Your task to perform on an android device: What is the recent news? Image 0: 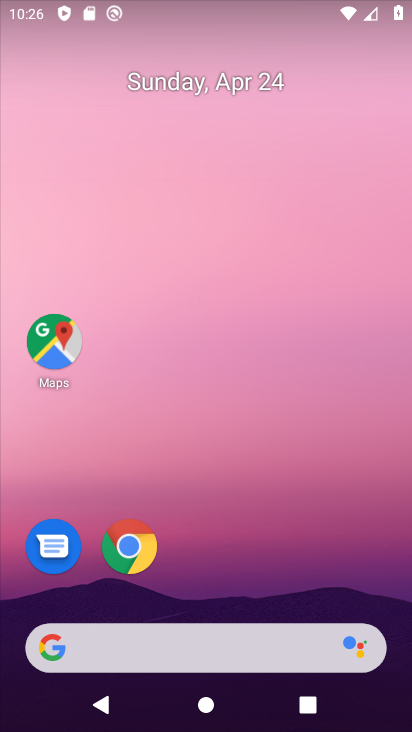
Step 0: drag from (264, 600) to (292, 103)
Your task to perform on an android device: What is the recent news? Image 1: 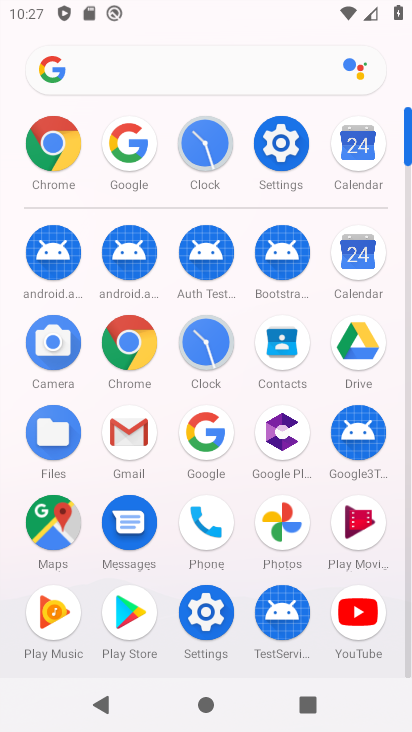
Step 1: click (196, 434)
Your task to perform on an android device: What is the recent news? Image 2: 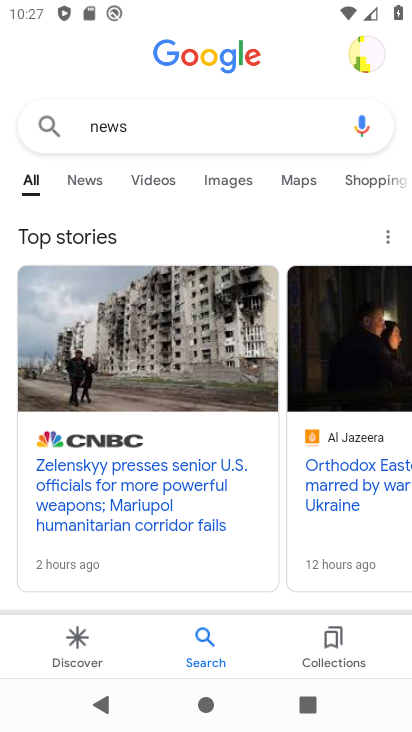
Step 2: click (180, 138)
Your task to perform on an android device: What is the recent news? Image 3: 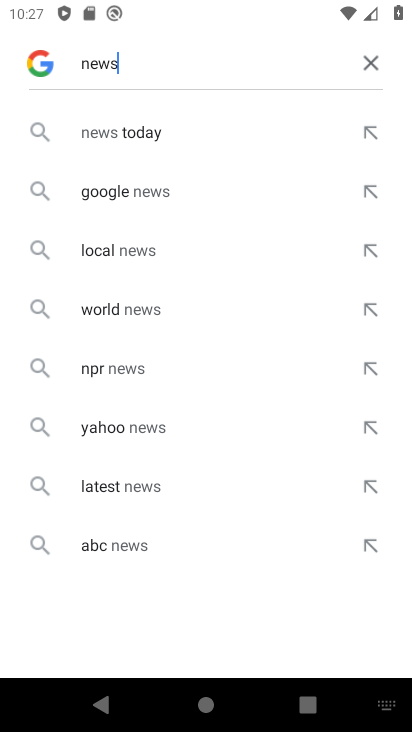
Step 3: click (152, 137)
Your task to perform on an android device: What is the recent news? Image 4: 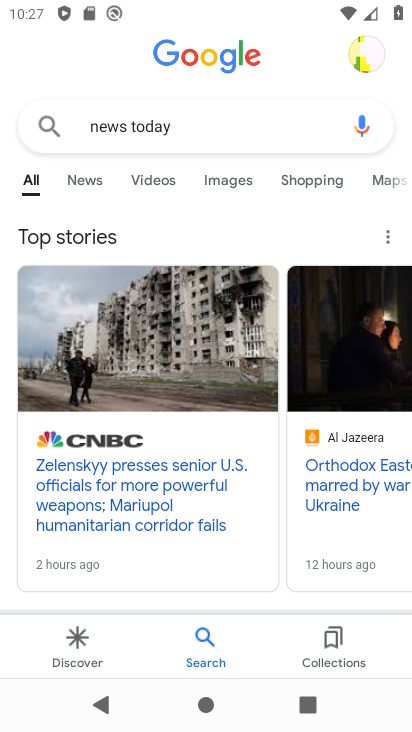
Step 4: task complete